Your task to perform on an android device: move an email to a new category in the gmail app Image 0: 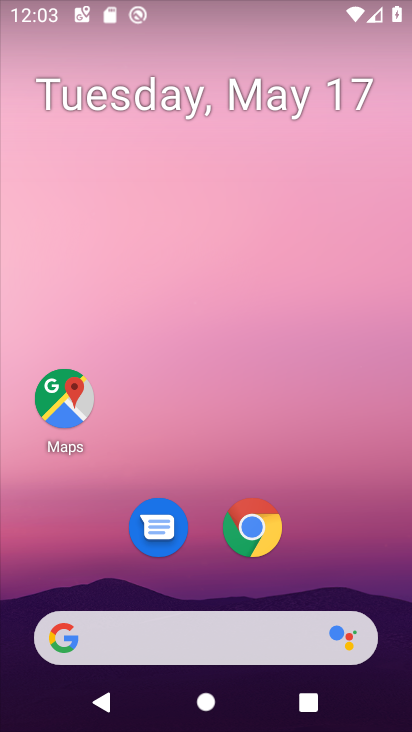
Step 0: drag from (334, 574) to (325, 119)
Your task to perform on an android device: move an email to a new category in the gmail app Image 1: 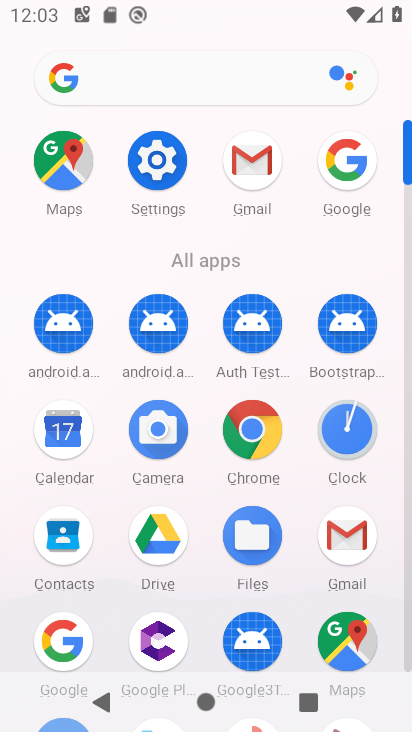
Step 1: click (371, 542)
Your task to perform on an android device: move an email to a new category in the gmail app Image 2: 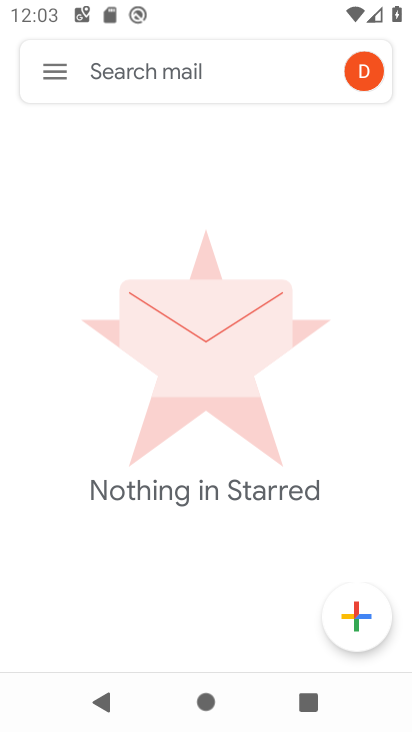
Step 2: click (52, 78)
Your task to perform on an android device: move an email to a new category in the gmail app Image 3: 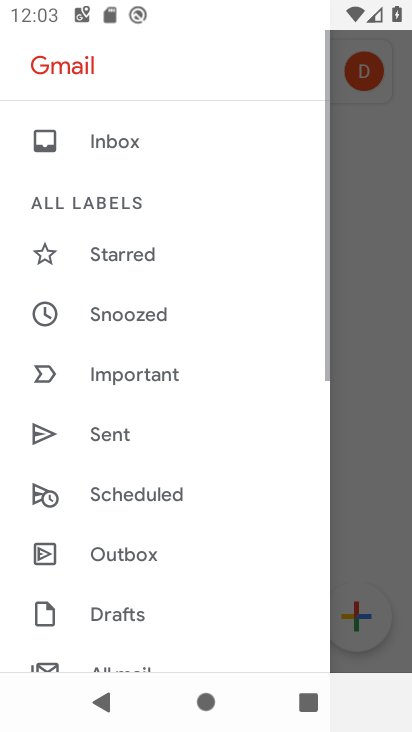
Step 3: click (135, 149)
Your task to perform on an android device: move an email to a new category in the gmail app Image 4: 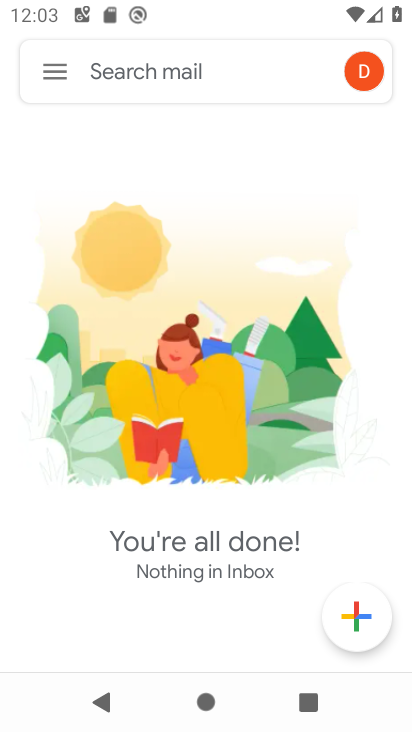
Step 4: task complete